Your task to perform on an android device: Open Reddit.com Image 0: 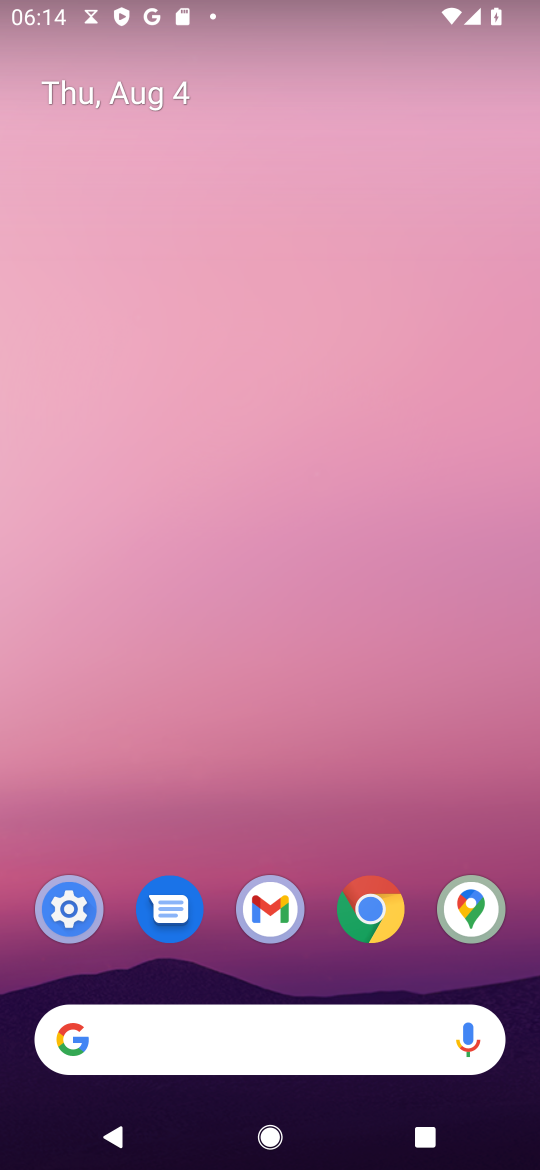
Step 0: click (373, 903)
Your task to perform on an android device: Open Reddit.com Image 1: 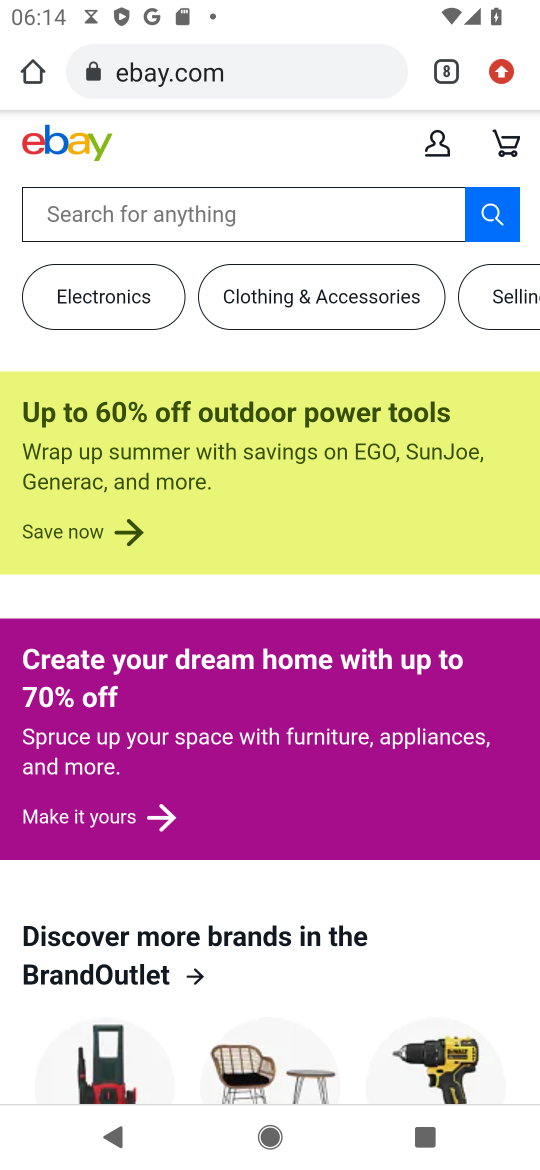
Step 1: drag from (497, 75) to (300, 240)
Your task to perform on an android device: Open Reddit.com Image 2: 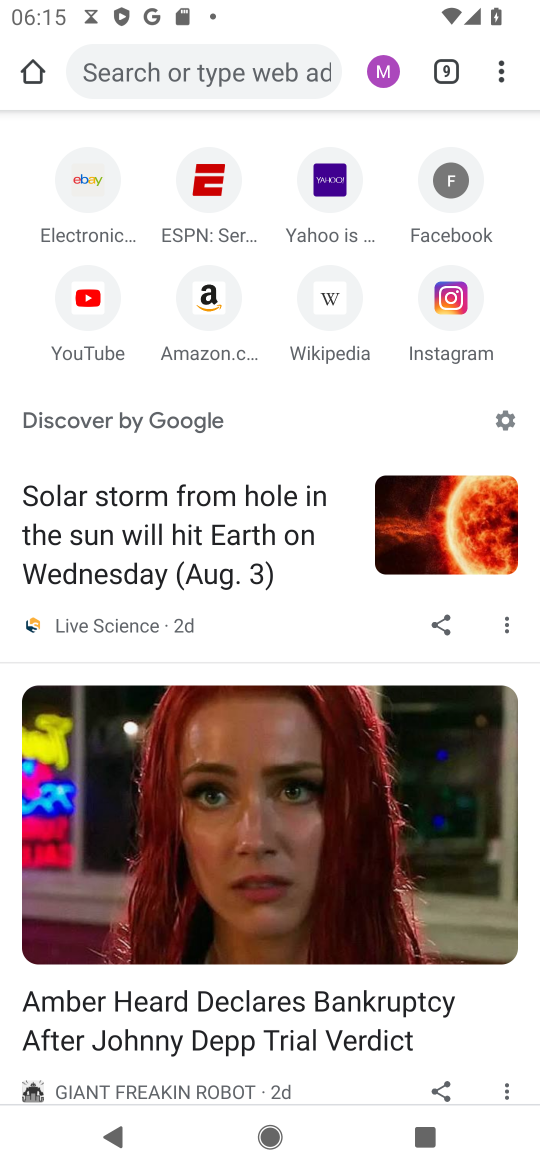
Step 2: click (153, 52)
Your task to perform on an android device: Open Reddit.com Image 3: 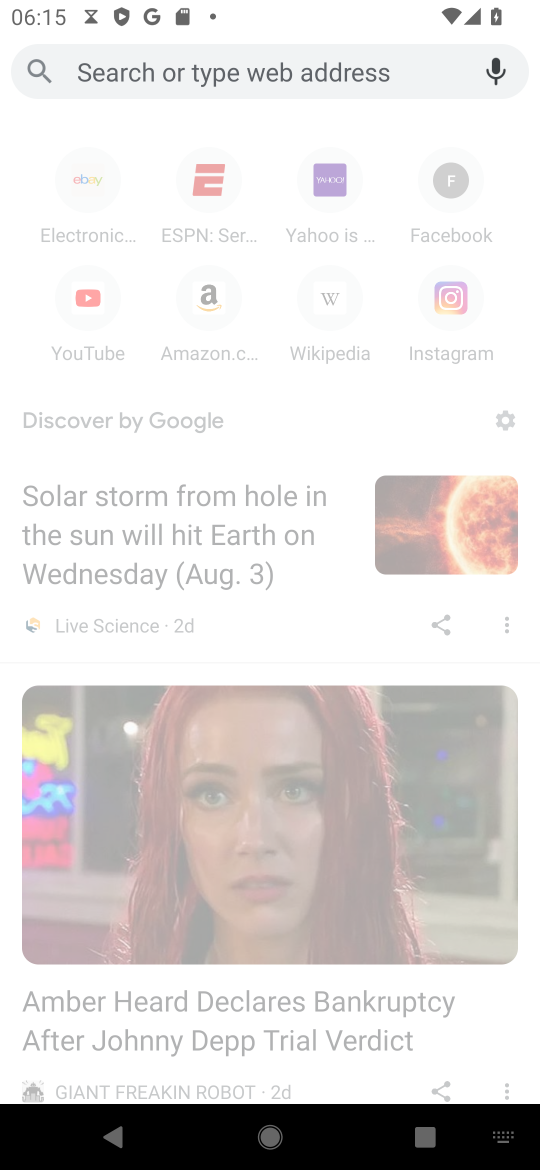
Step 3: type "reddit.com"
Your task to perform on an android device: Open Reddit.com Image 4: 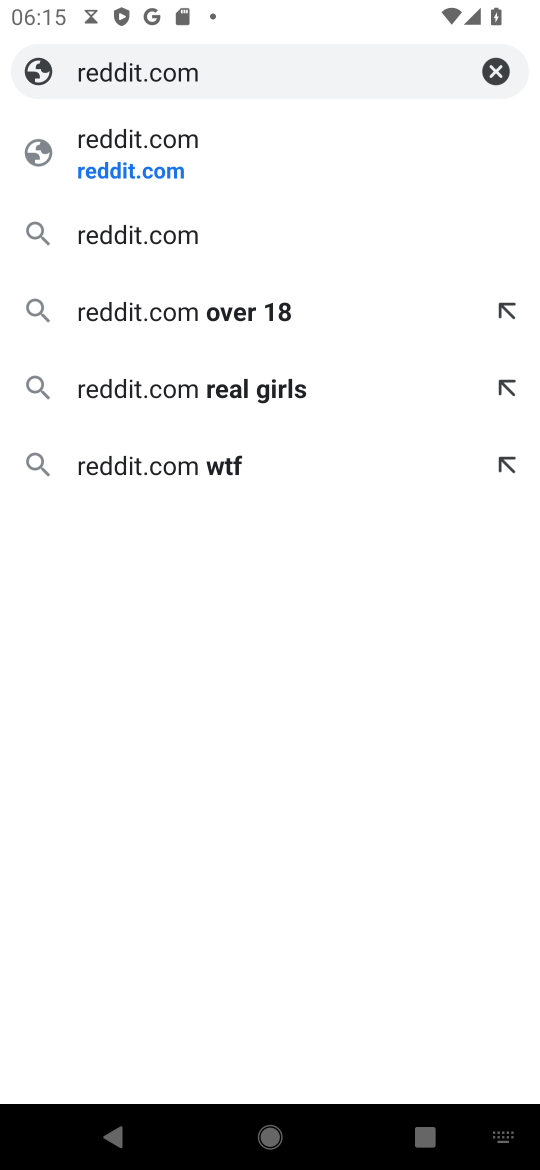
Step 4: click (167, 144)
Your task to perform on an android device: Open Reddit.com Image 5: 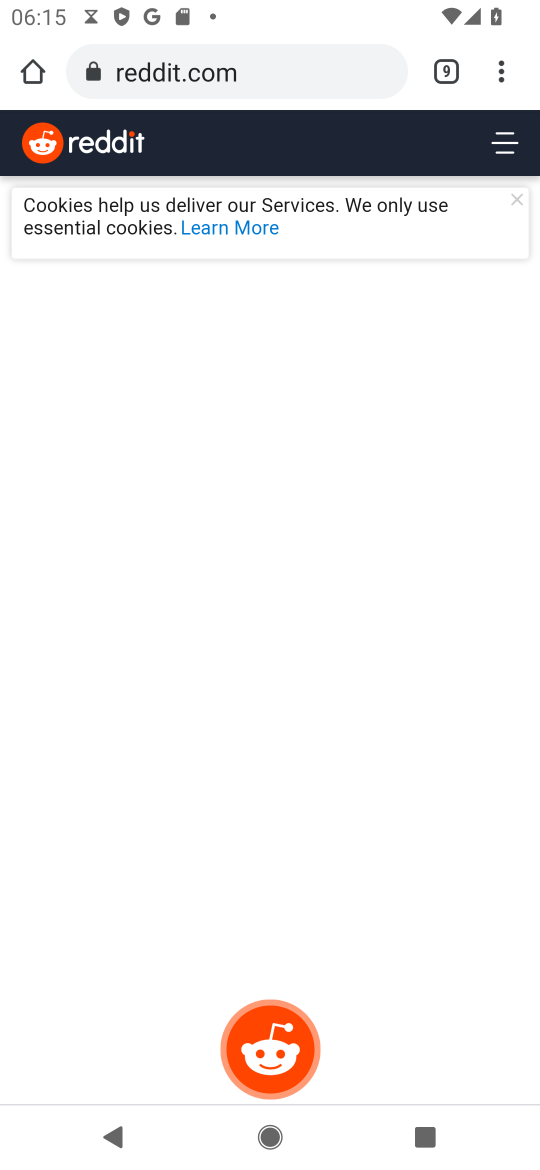
Step 5: task complete